Your task to perform on an android device: make emails show in primary in the gmail app Image 0: 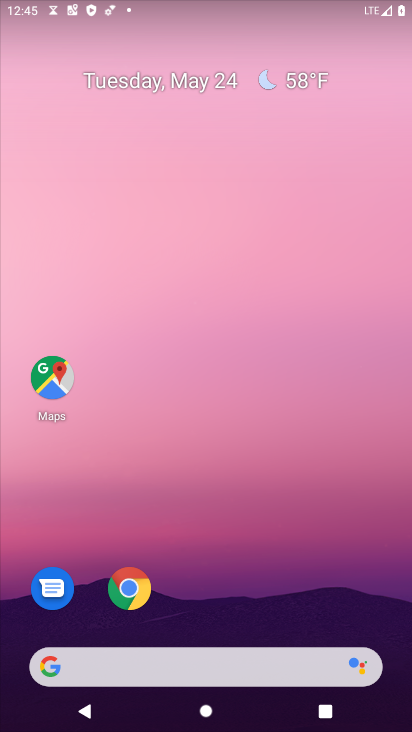
Step 0: drag from (207, 615) to (271, 69)
Your task to perform on an android device: make emails show in primary in the gmail app Image 1: 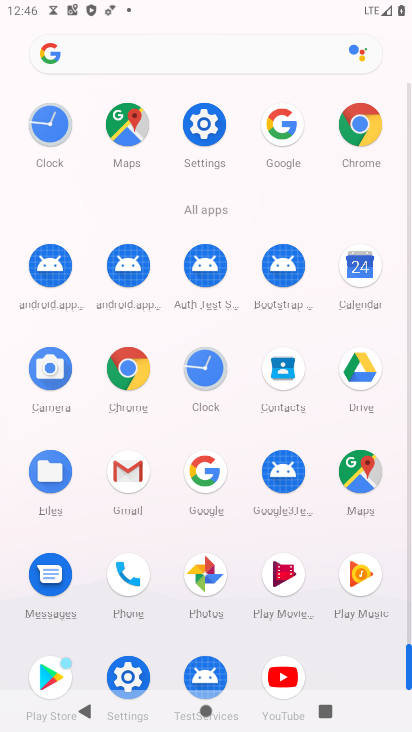
Step 1: click (127, 472)
Your task to perform on an android device: make emails show in primary in the gmail app Image 2: 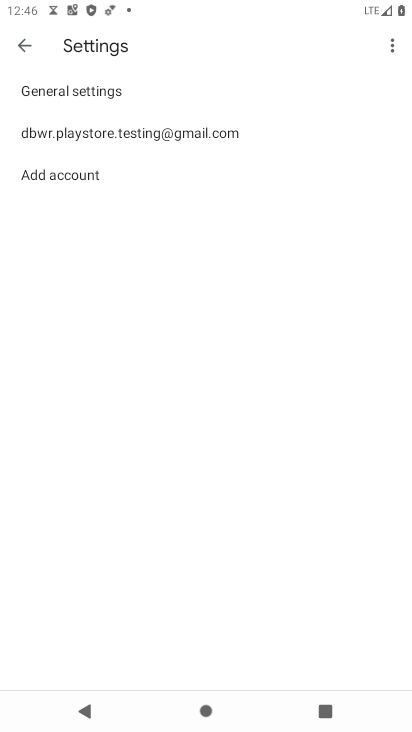
Step 2: click (168, 145)
Your task to perform on an android device: make emails show in primary in the gmail app Image 3: 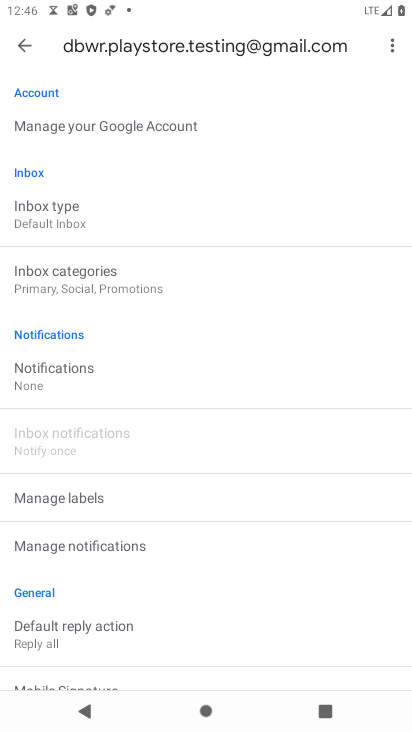
Step 3: click (66, 286)
Your task to perform on an android device: make emails show in primary in the gmail app Image 4: 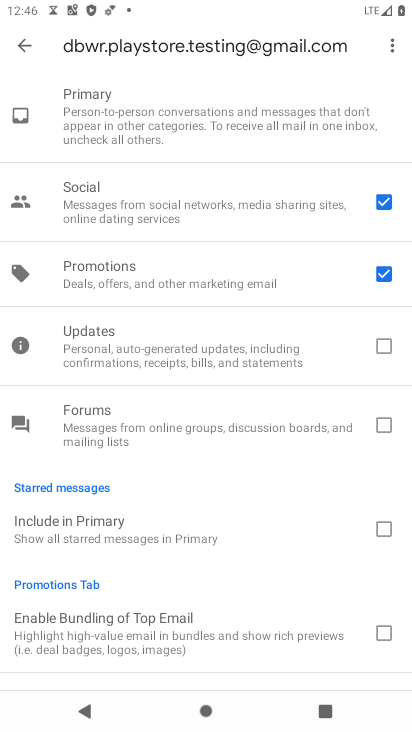
Step 4: click (392, 273)
Your task to perform on an android device: make emails show in primary in the gmail app Image 5: 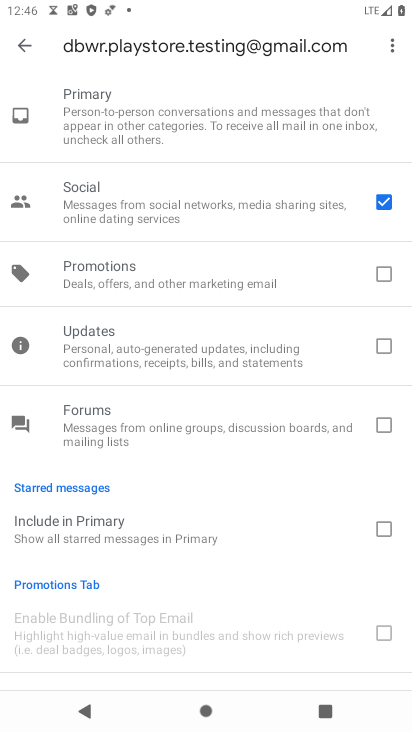
Step 5: click (383, 204)
Your task to perform on an android device: make emails show in primary in the gmail app Image 6: 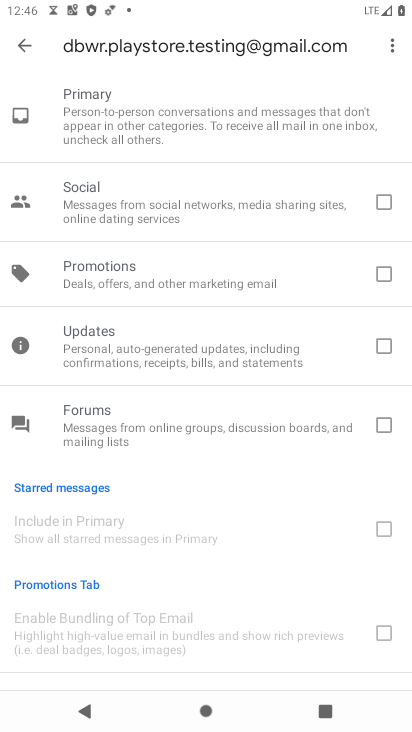
Step 6: task complete